Your task to perform on an android device: Do I have any events tomorrow? Image 0: 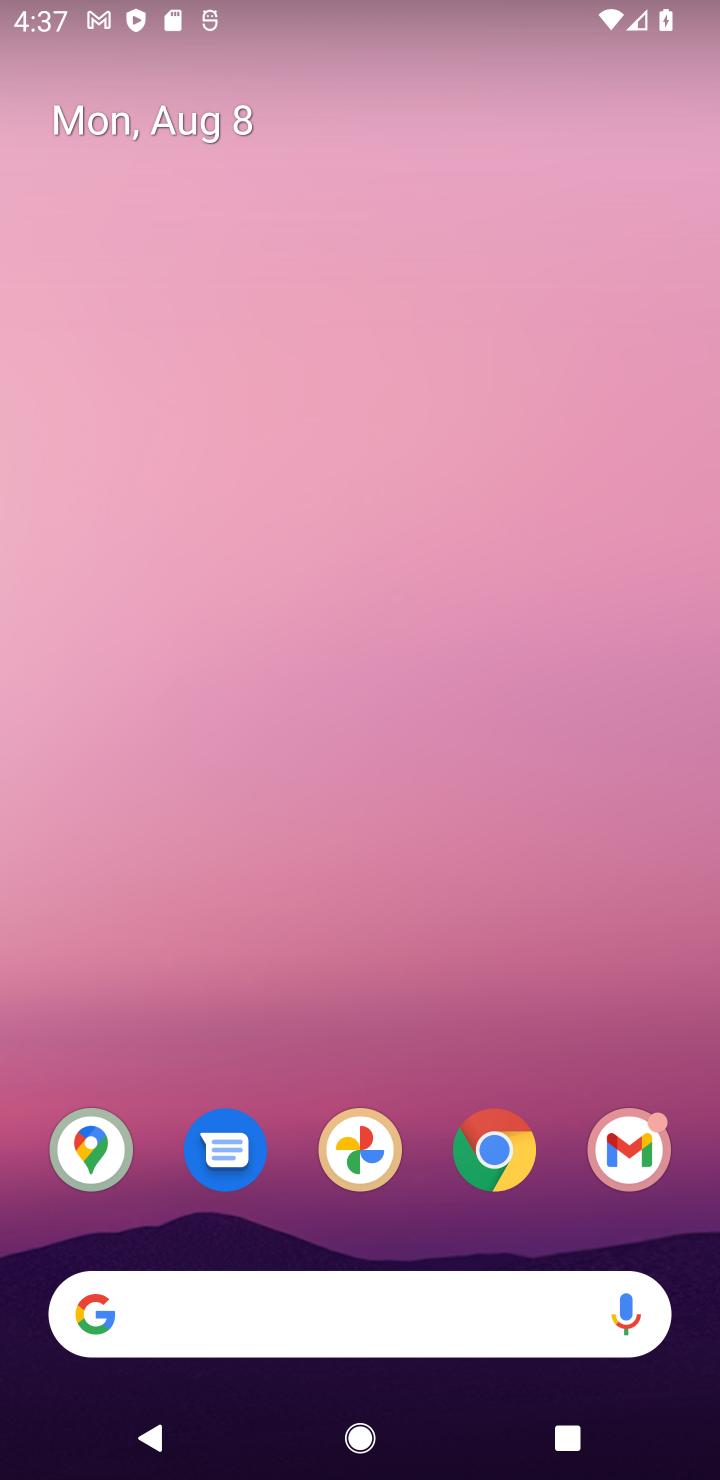
Step 0: drag from (431, 1235) to (416, 184)
Your task to perform on an android device: Do I have any events tomorrow? Image 1: 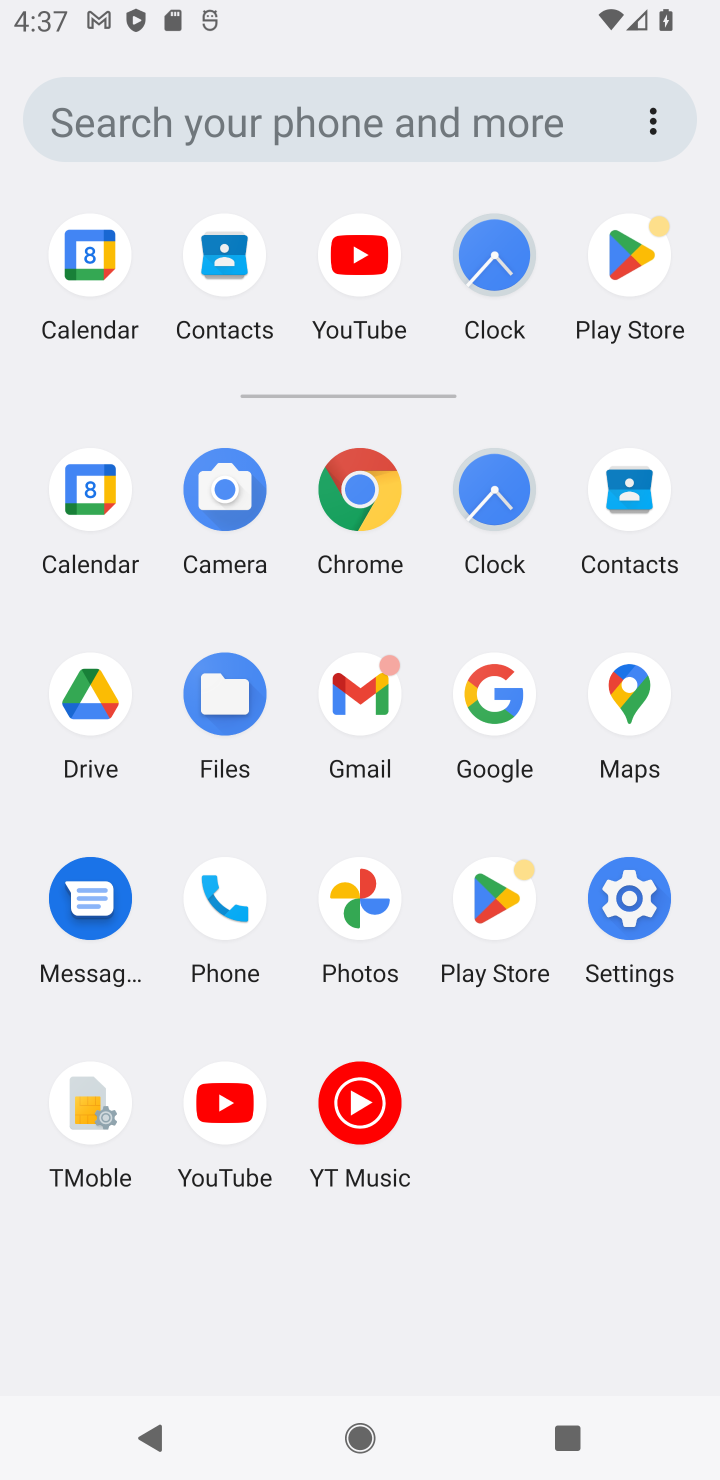
Step 1: click (95, 304)
Your task to perform on an android device: Do I have any events tomorrow? Image 2: 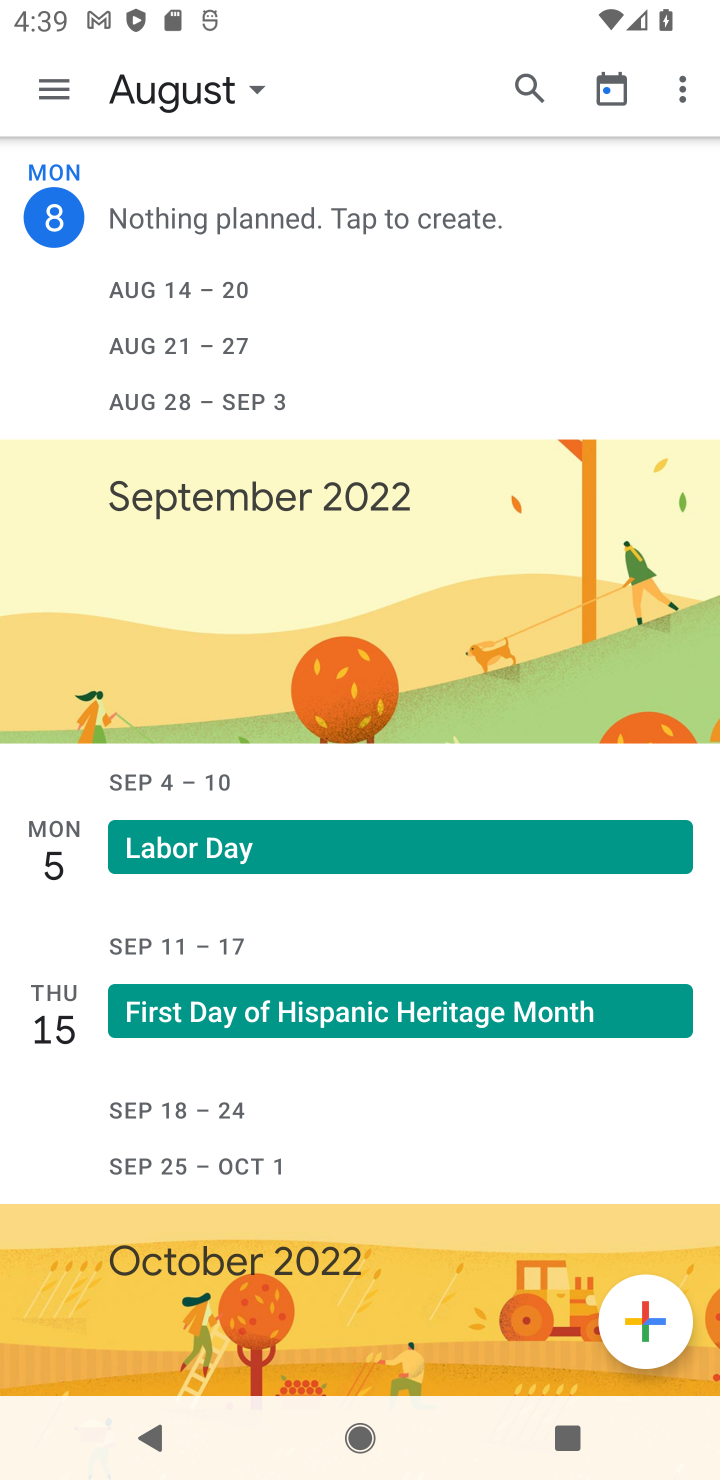
Step 2: task complete